Your task to perform on an android device: Open sound settings Image 0: 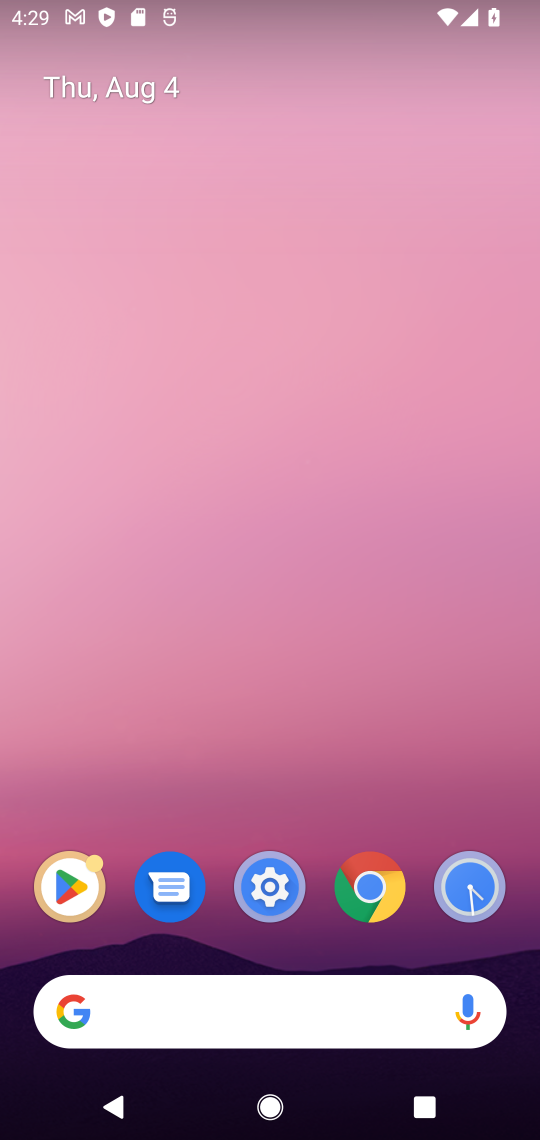
Step 0: click (272, 891)
Your task to perform on an android device: Open sound settings Image 1: 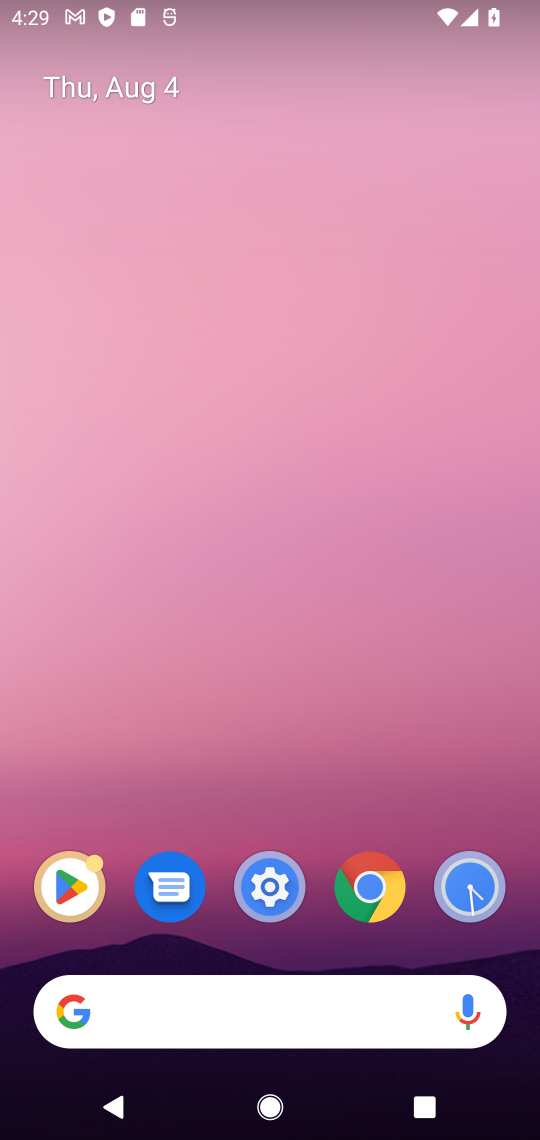
Step 1: click (274, 882)
Your task to perform on an android device: Open sound settings Image 2: 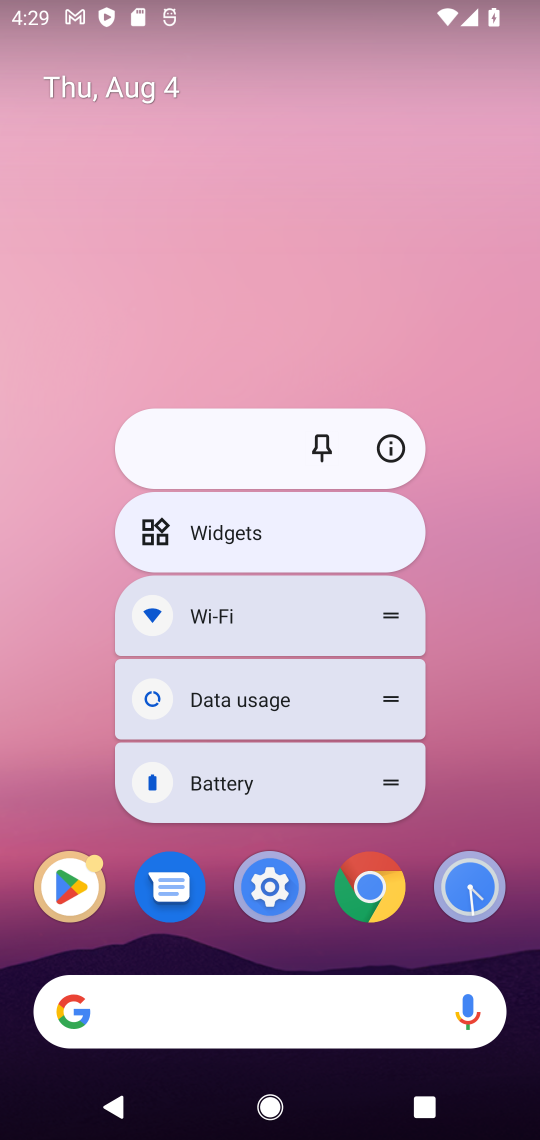
Step 2: click (241, 884)
Your task to perform on an android device: Open sound settings Image 3: 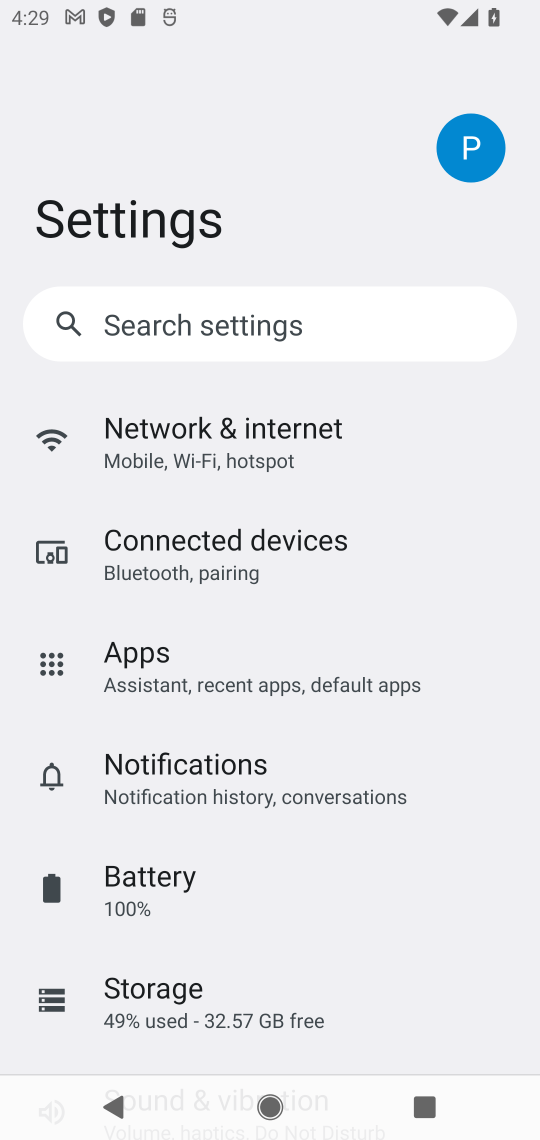
Step 3: drag from (291, 913) to (281, 493)
Your task to perform on an android device: Open sound settings Image 4: 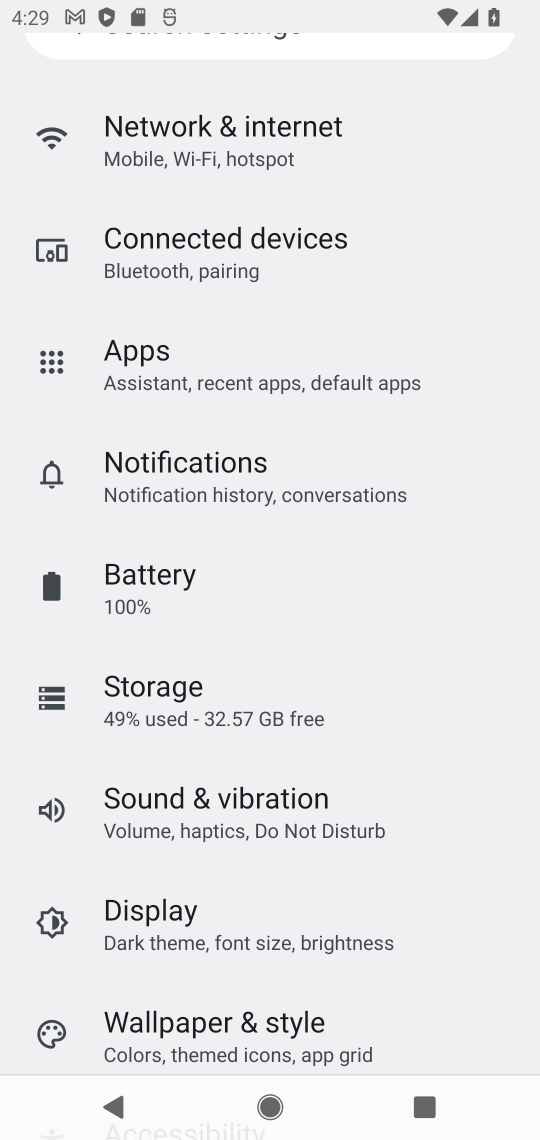
Step 4: drag from (414, 990) to (393, 399)
Your task to perform on an android device: Open sound settings Image 5: 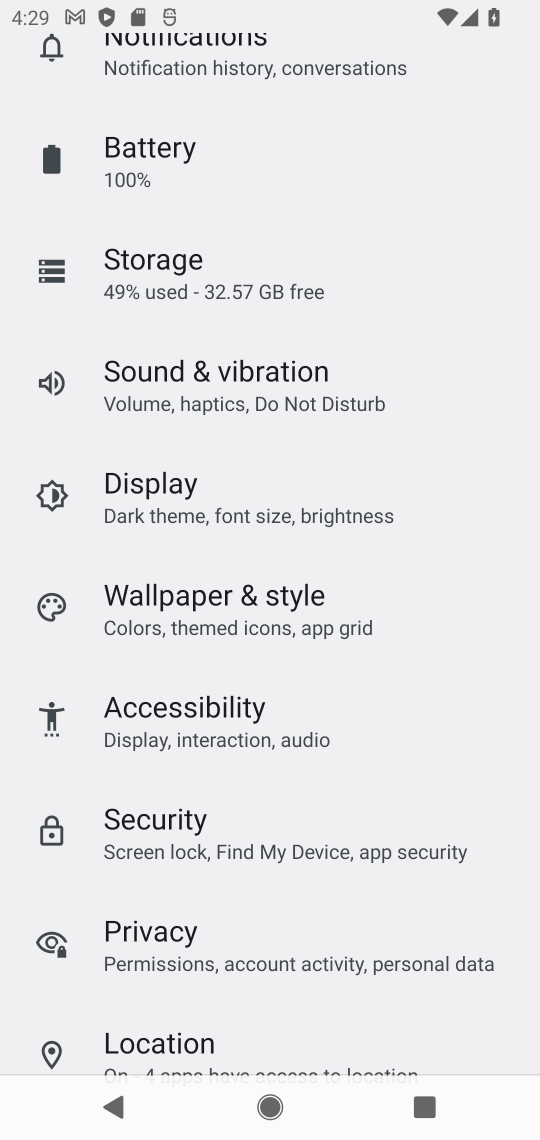
Step 5: drag from (261, 987) to (267, 505)
Your task to perform on an android device: Open sound settings Image 6: 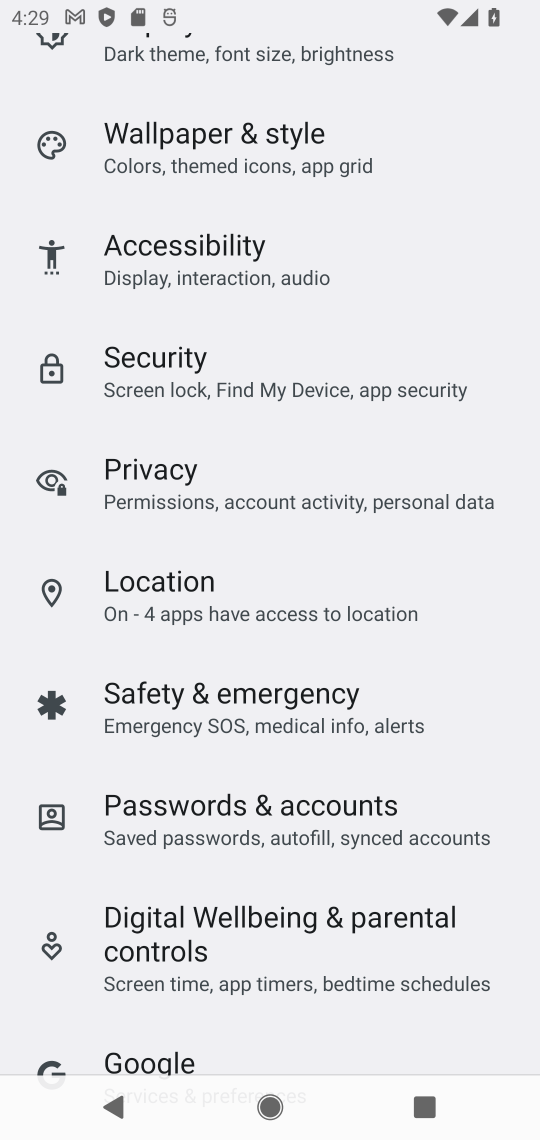
Step 6: drag from (401, 139) to (438, 548)
Your task to perform on an android device: Open sound settings Image 7: 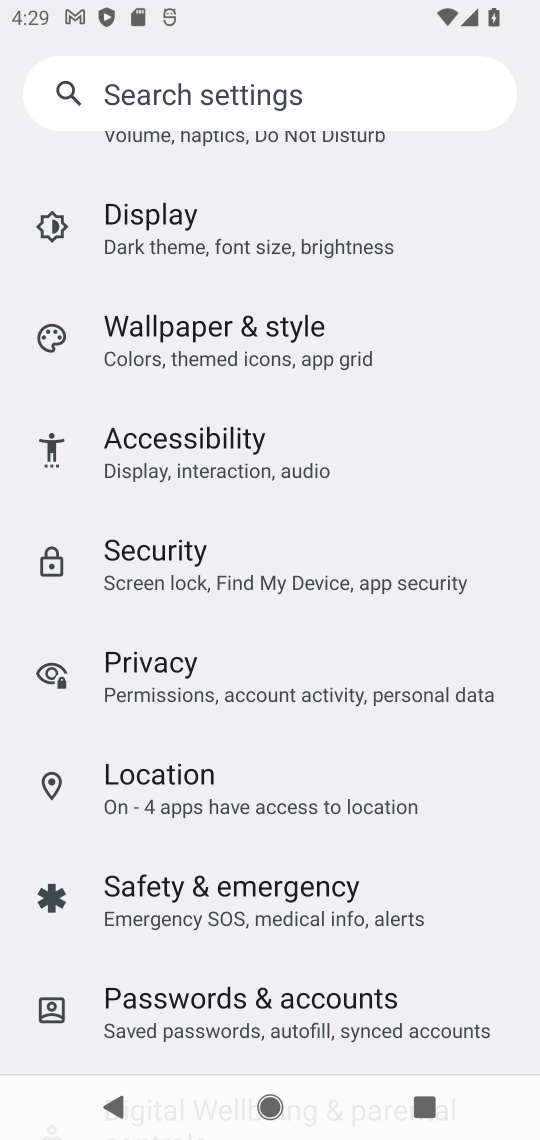
Step 7: drag from (399, 193) to (427, 517)
Your task to perform on an android device: Open sound settings Image 8: 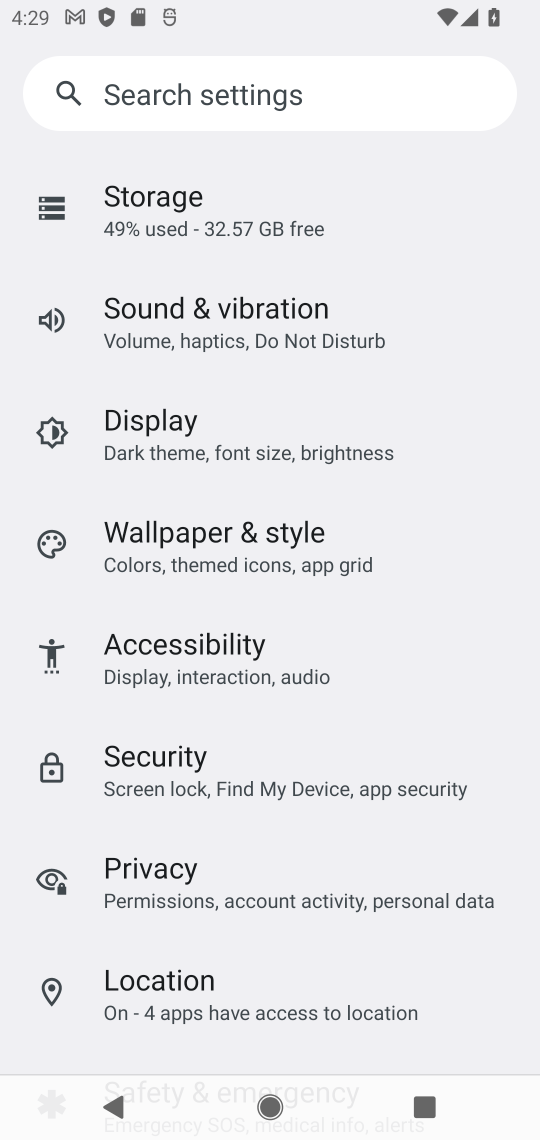
Step 8: click (180, 304)
Your task to perform on an android device: Open sound settings Image 9: 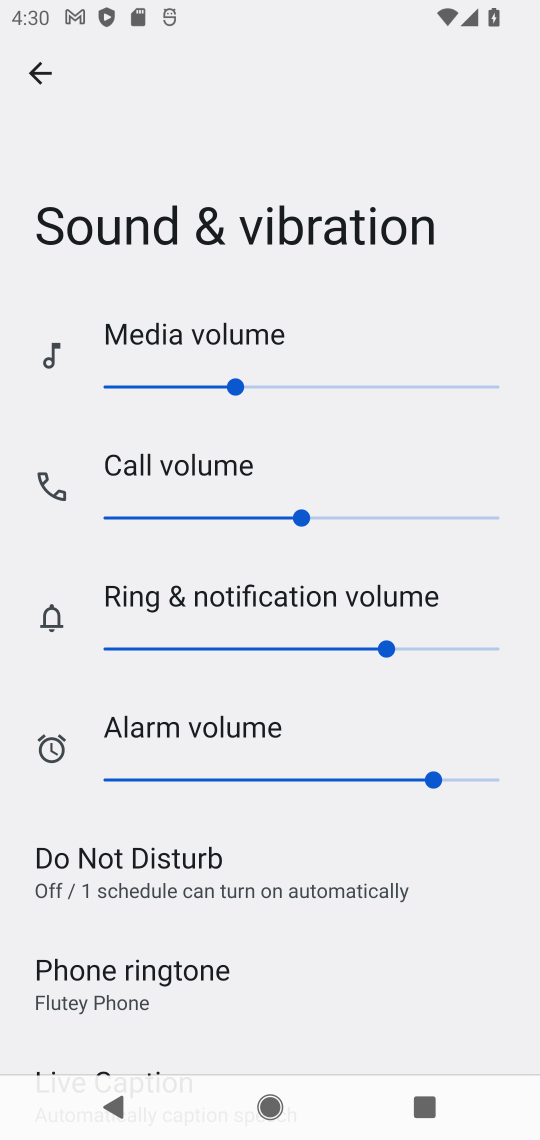
Step 9: task complete